Your task to perform on an android device: Open battery settings Image 0: 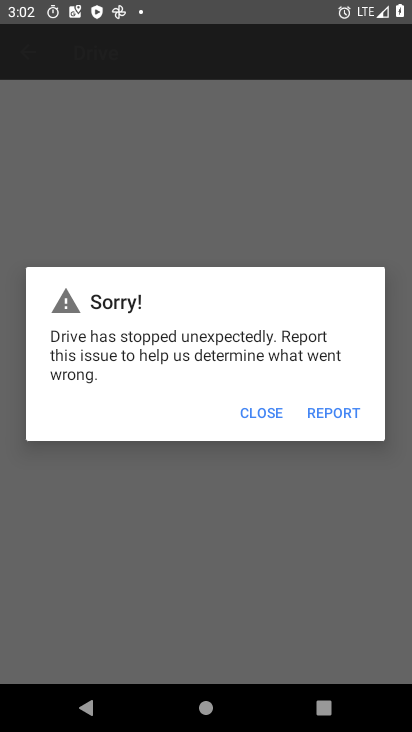
Step 0: press home button
Your task to perform on an android device: Open battery settings Image 1: 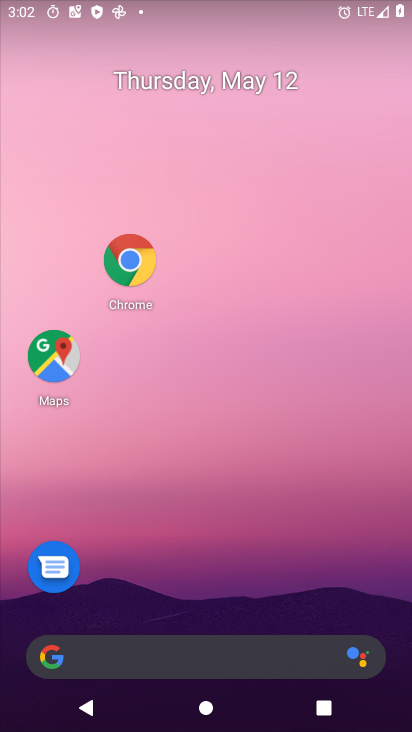
Step 1: drag from (214, 631) to (166, 229)
Your task to perform on an android device: Open battery settings Image 2: 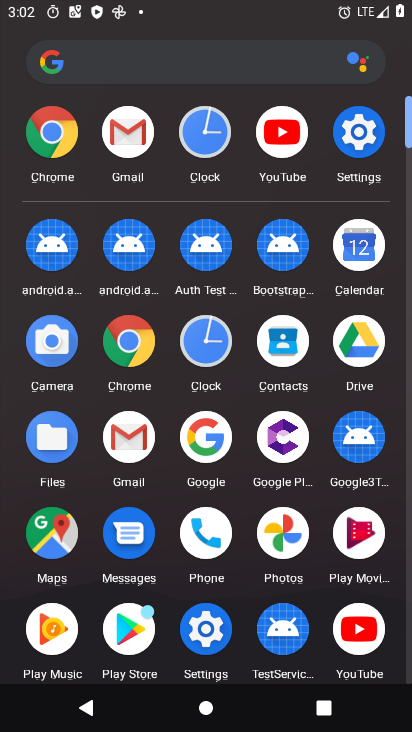
Step 2: click (363, 133)
Your task to perform on an android device: Open battery settings Image 3: 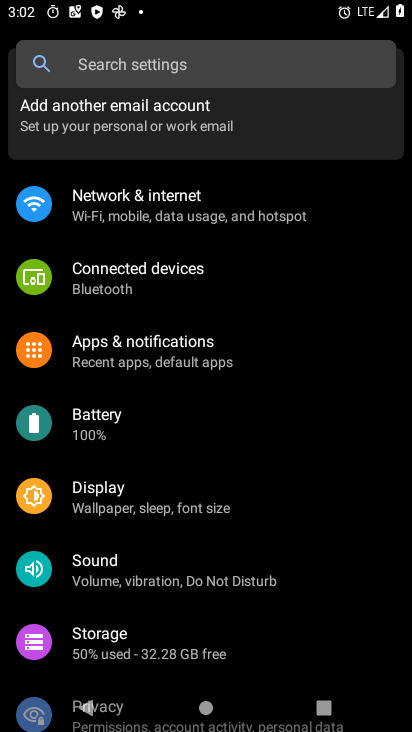
Step 3: click (99, 438)
Your task to perform on an android device: Open battery settings Image 4: 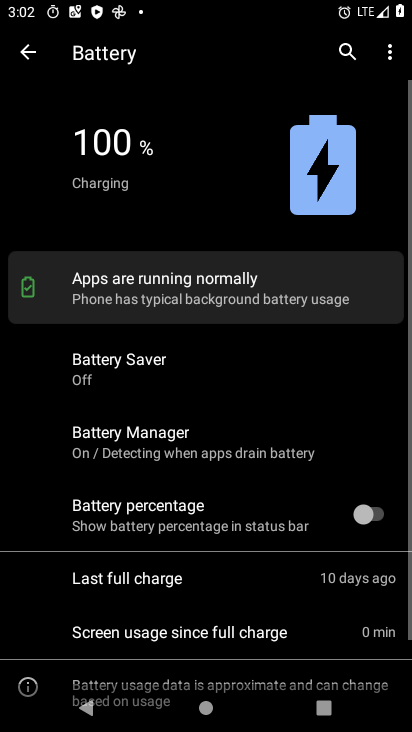
Step 4: task complete